Your task to perform on an android device: Open Wikipedia Image 0: 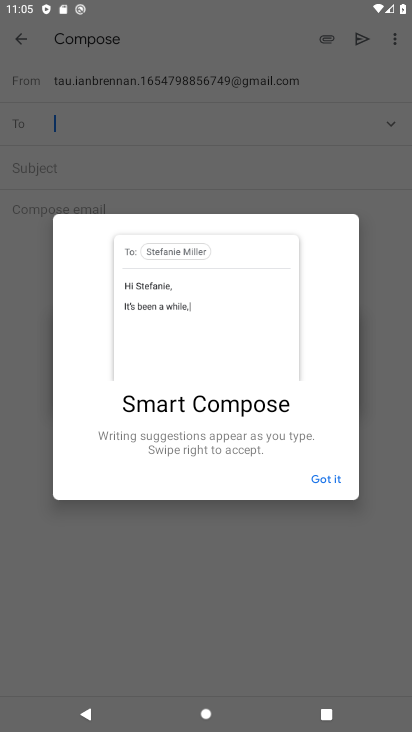
Step 0: press home button
Your task to perform on an android device: Open Wikipedia Image 1: 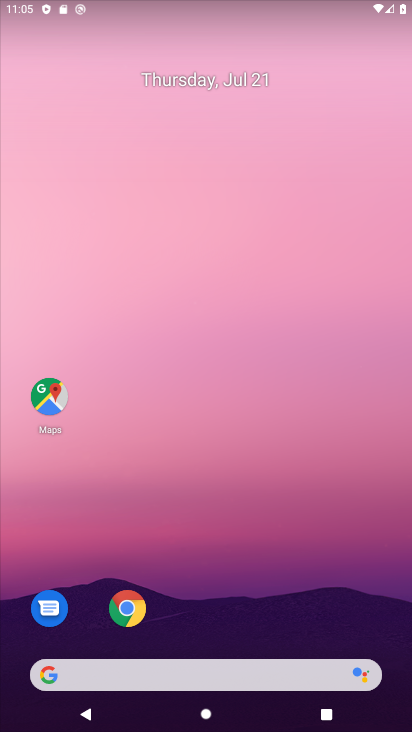
Step 1: click (127, 605)
Your task to perform on an android device: Open Wikipedia Image 2: 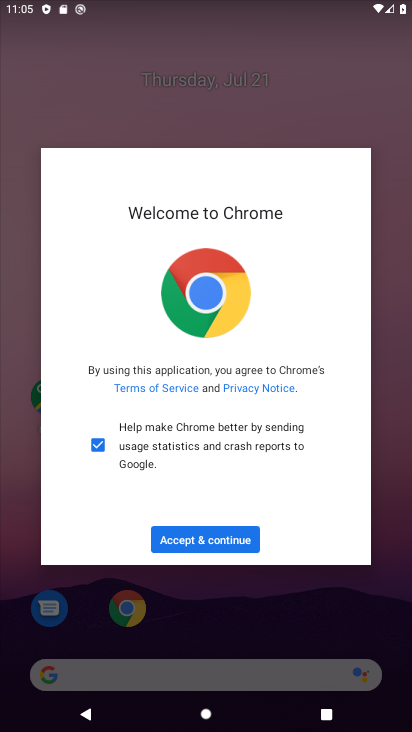
Step 2: click (249, 538)
Your task to perform on an android device: Open Wikipedia Image 3: 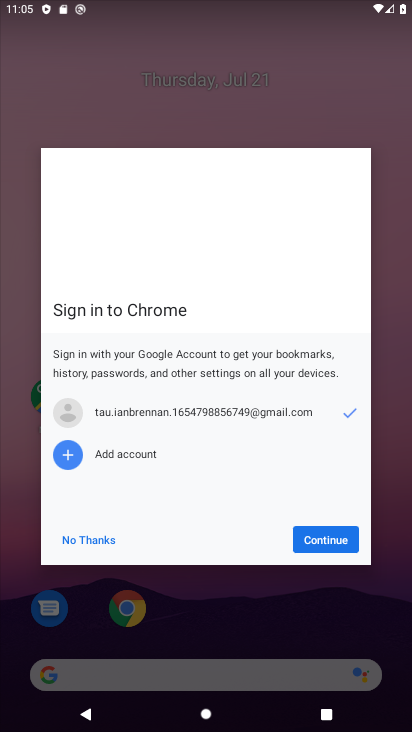
Step 3: click (321, 530)
Your task to perform on an android device: Open Wikipedia Image 4: 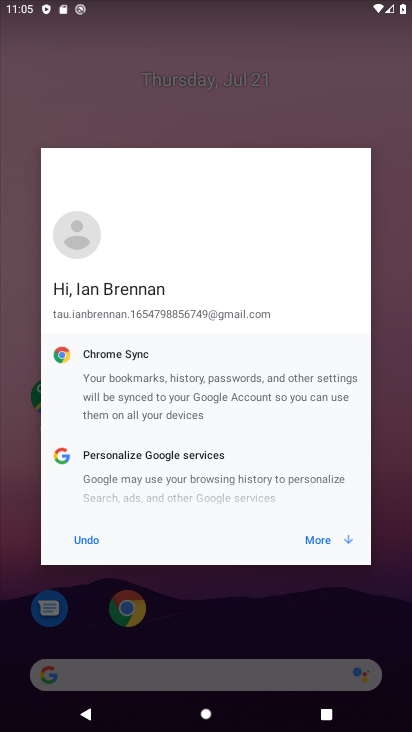
Step 4: click (317, 529)
Your task to perform on an android device: Open Wikipedia Image 5: 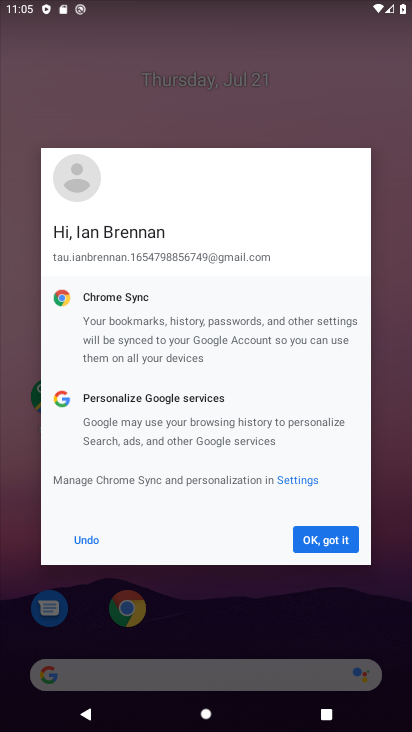
Step 5: click (317, 529)
Your task to perform on an android device: Open Wikipedia Image 6: 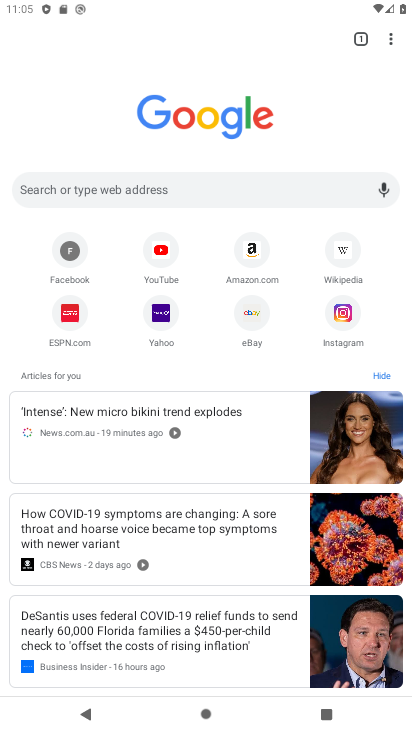
Step 6: click (331, 251)
Your task to perform on an android device: Open Wikipedia Image 7: 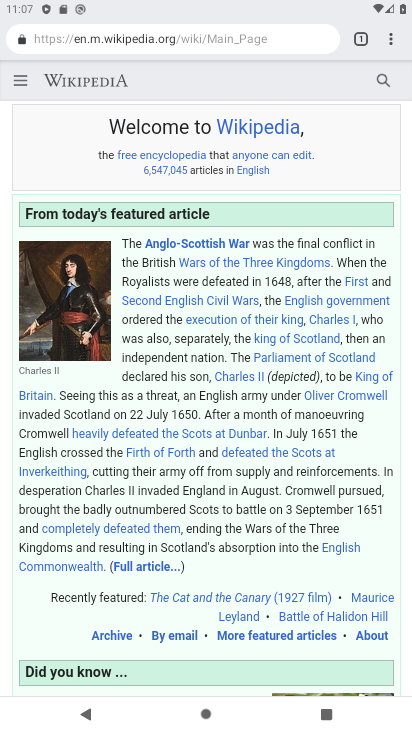
Step 7: task complete